Your task to perform on an android device: Open display settings Image 0: 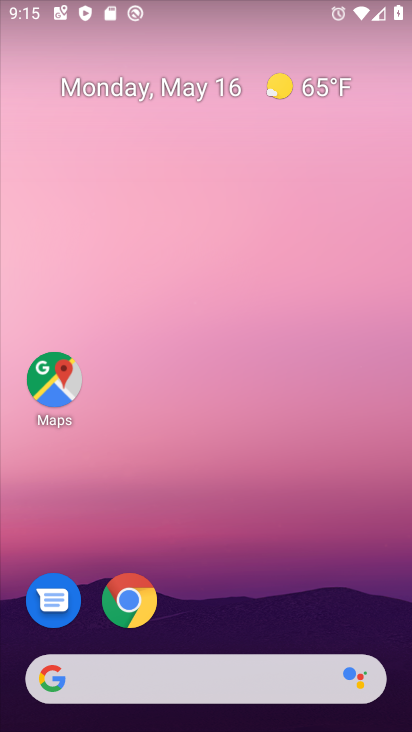
Step 0: drag from (203, 623) to (212, 398)
Your task to perform on an android device: Open display settings Image 1: 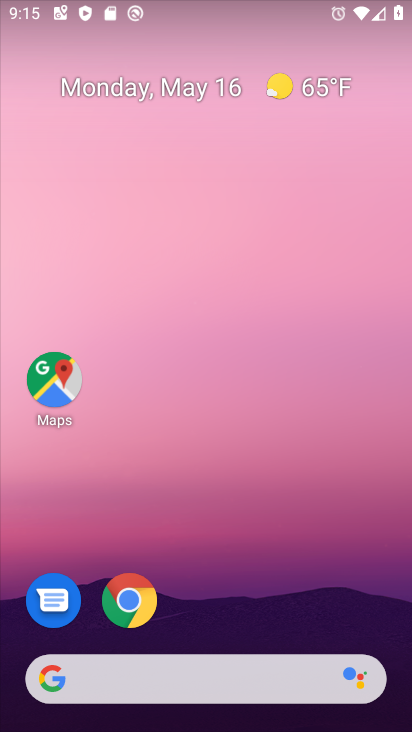
Step 1: drag from (215, 639) to (271, 363)
Your task to perform on an android device: Open display settings Image 2: 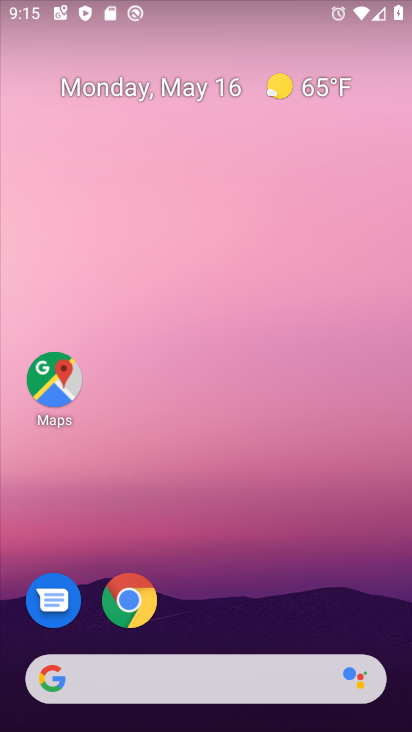
Step 2: drag from (210, 606) to (257, 197)
Your task to perform on an android device: Open display settings Image 3: 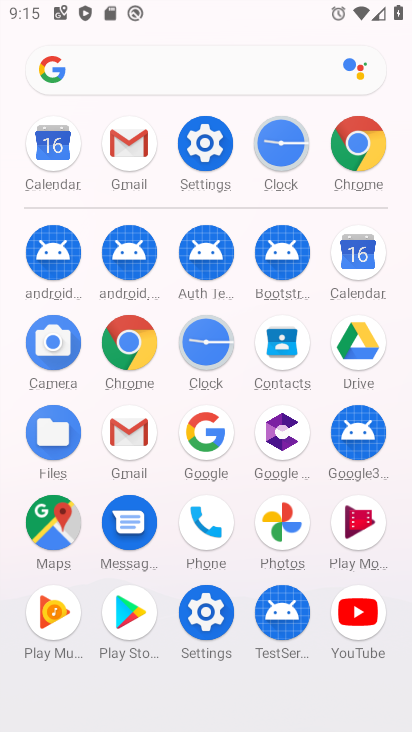
Step 3: click (207, 148)
Your task to perform on an android device: Open display settings Image 4: 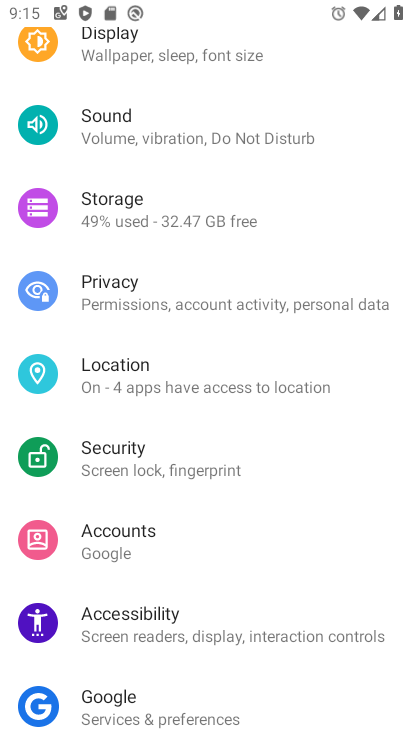
Step 4: drag from (231, 149) to (182, 679)
Your task to perform on an android device: Open display settings Image 5: 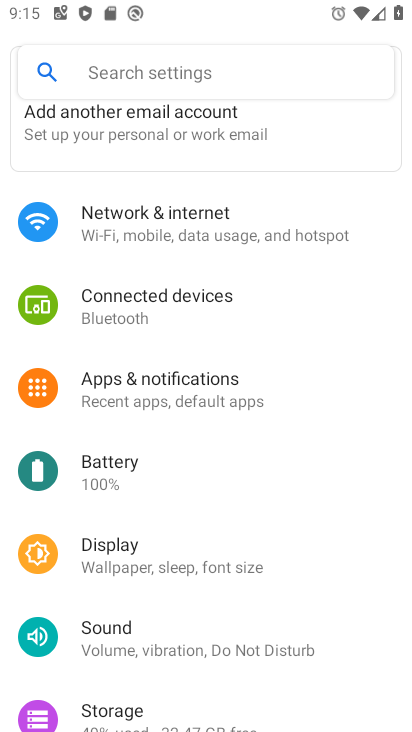
Step 5: click (114, 555)
Your task to perform on an android device: Open display settings Image 6: 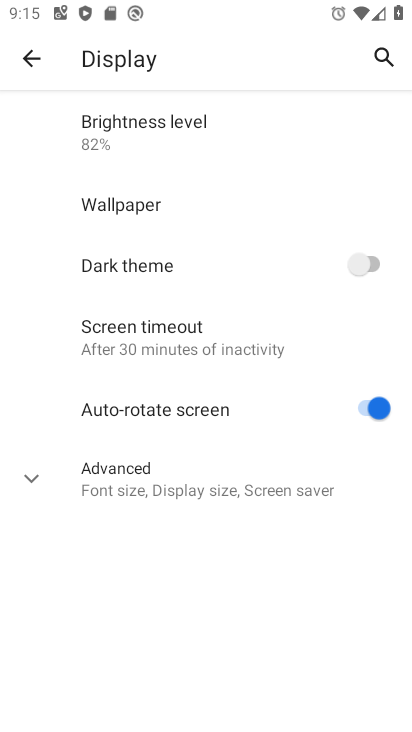
Step 6: drag from (242, 572) to (353, 33)
Your task to perform on an android device: Open display settings Image 7: 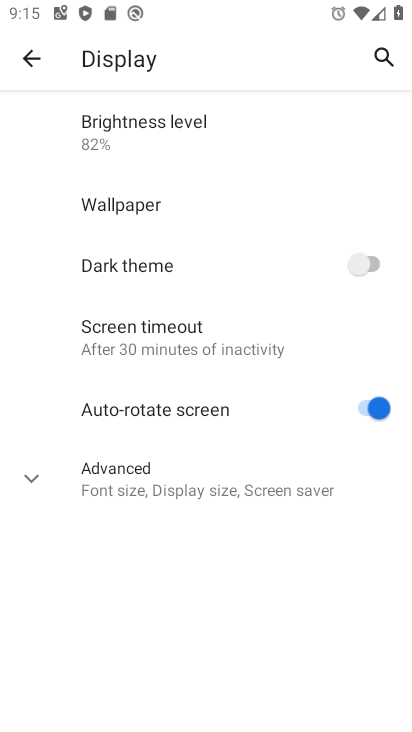
Step 7: drag from (213, 652) to (292, 178)
Your task to perform on an android device: Open display settings Image 8: 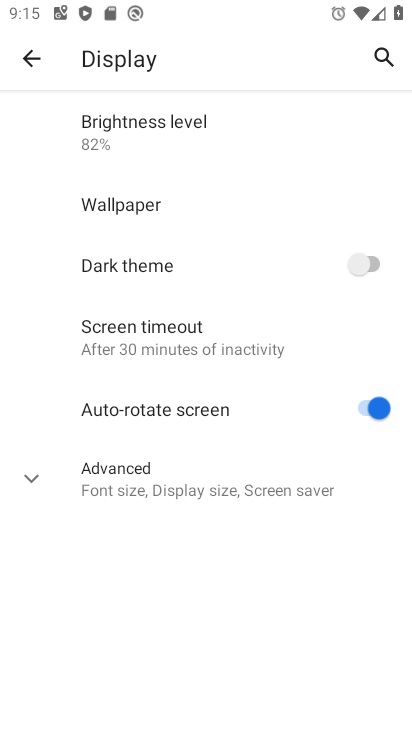
Step 8: drag from (190, 623) to (284, 244)
Your task to perform on an android device: Open display settings Image 9: 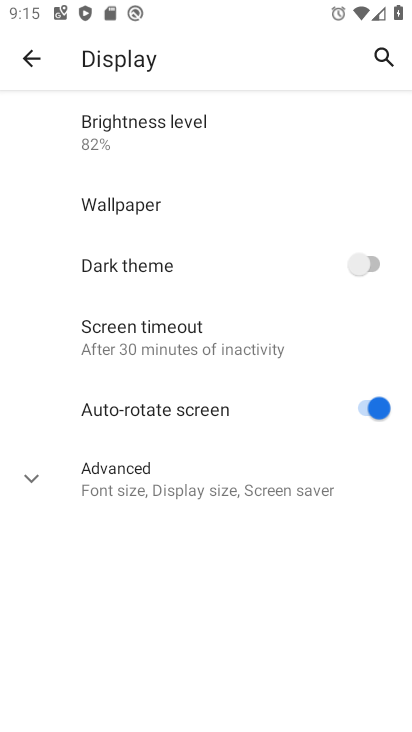
Step 9: click (162, 489)
Your task to perform on an android device: Open display settings Image 10: 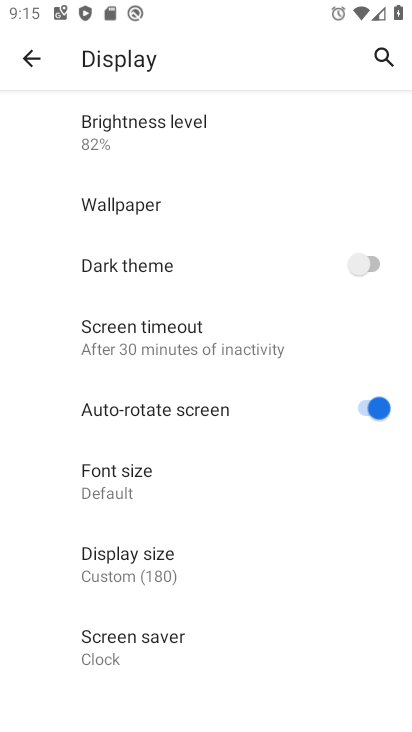
Step 10: task complete